Your task to perform on an android device: Open Android settings Image 0: 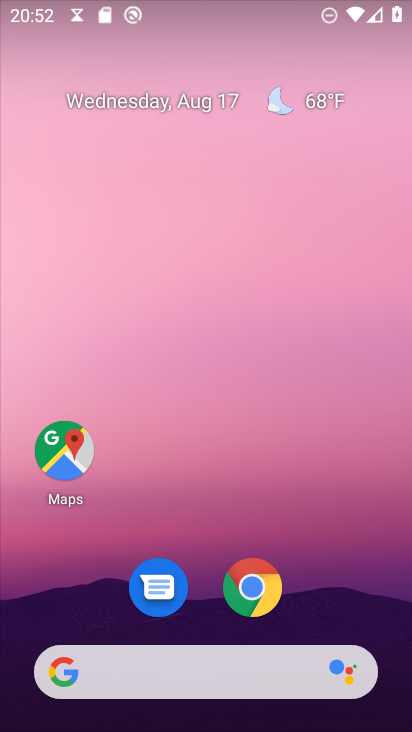
Step 0: drag from (18, 720) to (282, 212)
Your task to perform on an android device: Open Android settings Image 1: 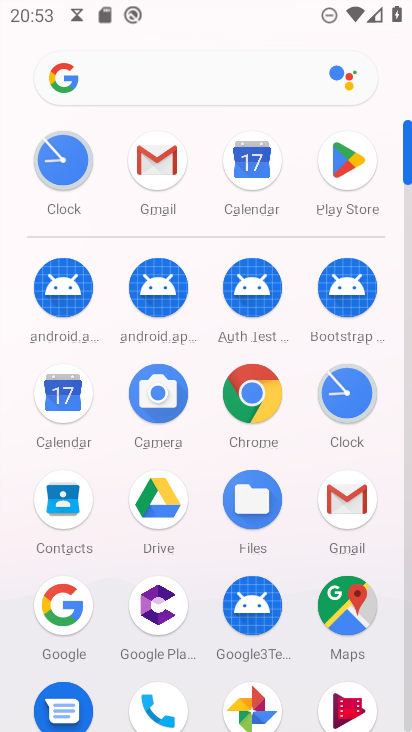
Step 1: drag from (14, 678) to (244, 96)
Your task to perform on an android device: Open Android settings Image 2: 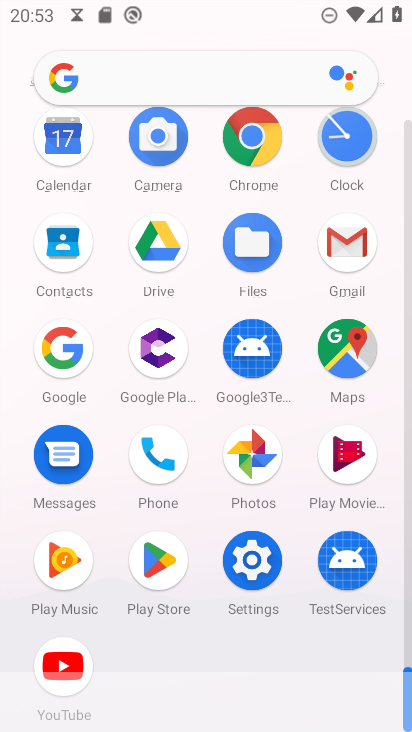
Step 2: click (249, 571)
Your task to perform on an android device: Open Android settings Image 3: 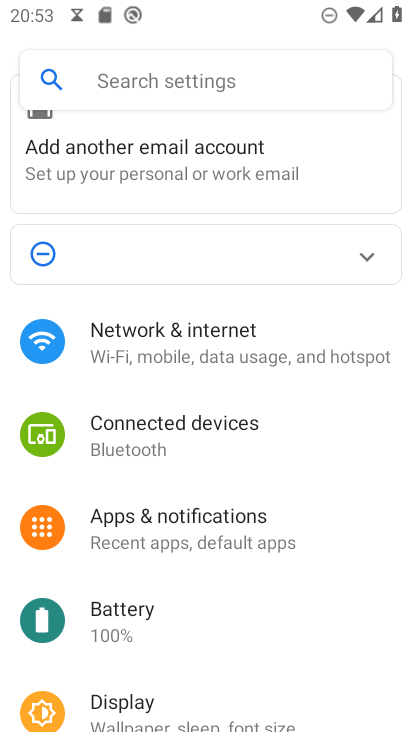
Step 3: drag from (364, 694) to (311, 326)
Your task to perform on an android device: Open Android settings Image 4: 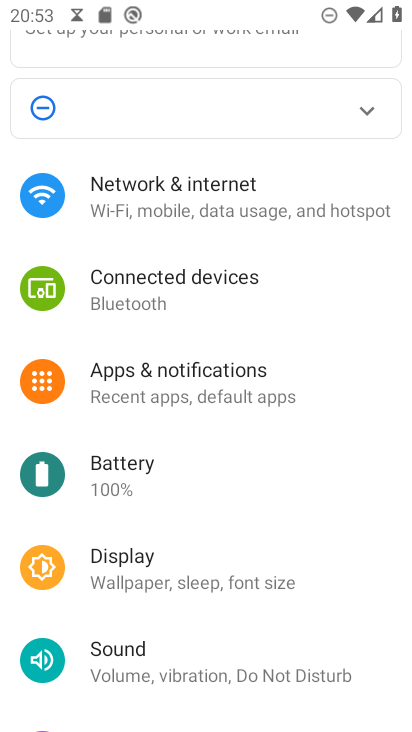
Step 4: drag from (359, 646) to (295, 24)
Your task to perform on an android device: Open Android settings Image 5: 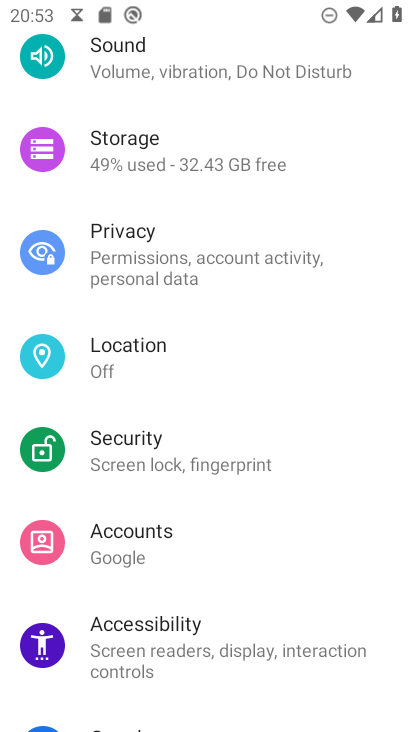
Step 5: drag from (373, 674) to (308, 161)
Your task to perform on an android device: Open Android settings Image 6: 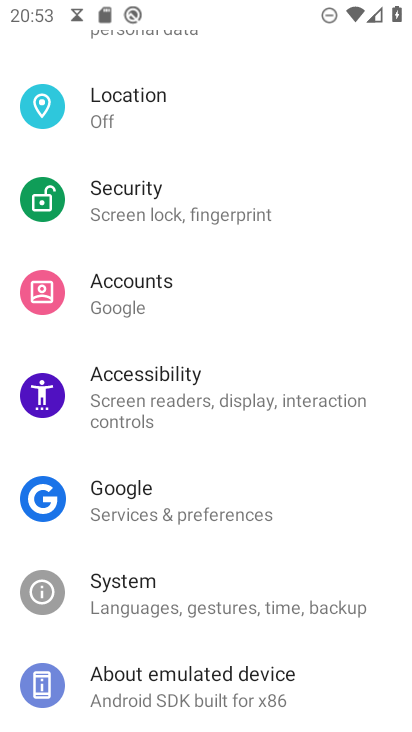
Step 6: click (168, 694)
Your task to perform on an android device: Open Android settings Image 7: 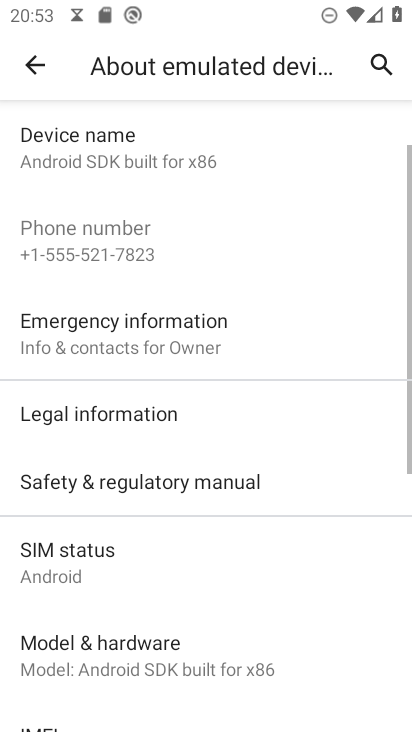
Step 7: drag from (358, 682) to (301, 312)
Your task to perform on an android device: Open Android settings Image 8: 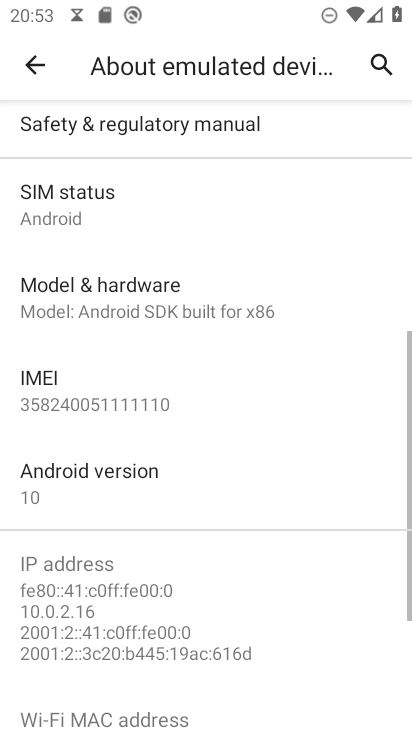
Step 8: click (59, 482)
Your task to perform on an android device: Open Android settings Image 9: 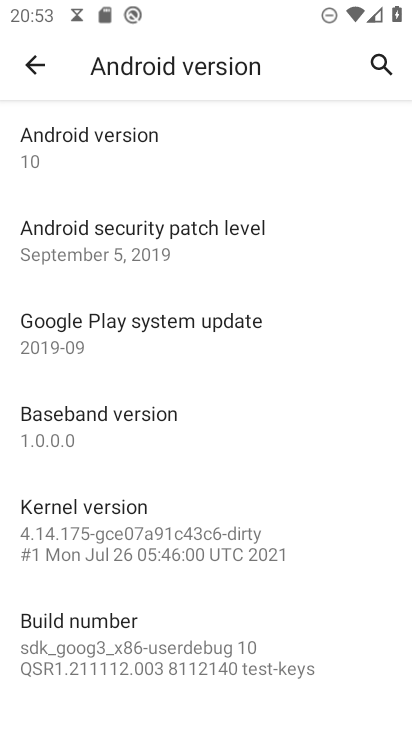
Step 9: task complete